Your task to perform on an android device: Open Chrome and go to the settings page Image 0: 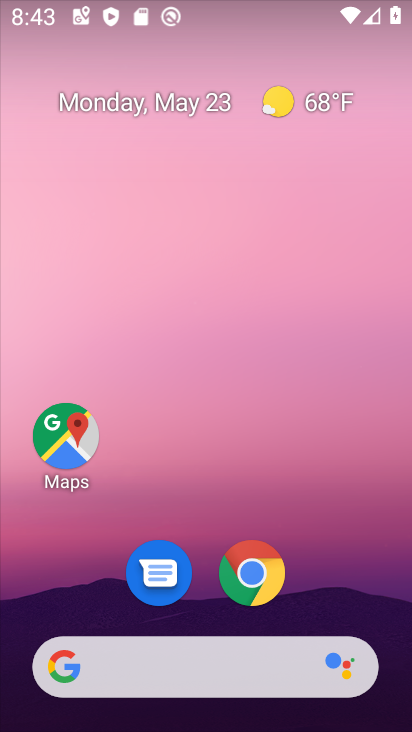
Step 0: drag from (198, 698) to (193, 217)
Your task to perform on an android device: Open Chrome and go to the settings page Image 1: 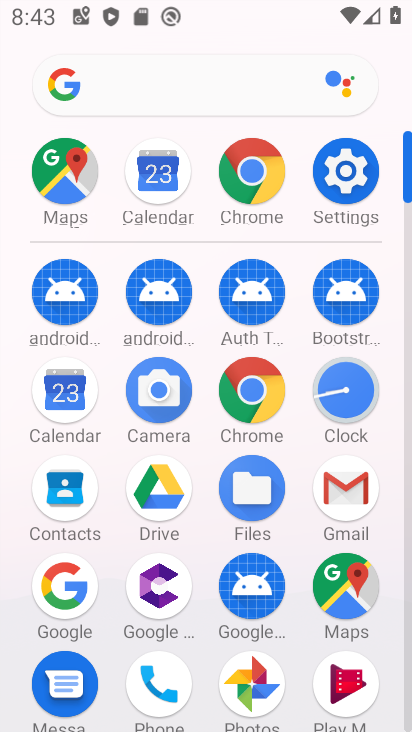
Step 1: click (250, 188)
Your task to perform on an android device: Open Chrome and go to the settings page Image 2: 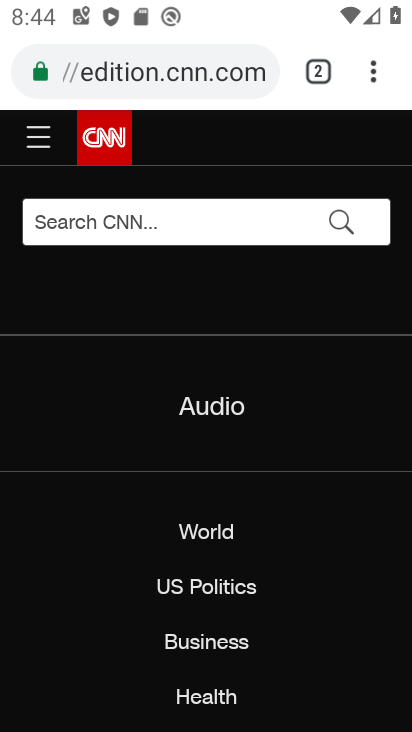
Step 2: click (377, 67)
Your task to perform on an android device: Open Chrome and go to the settings page Image 3: 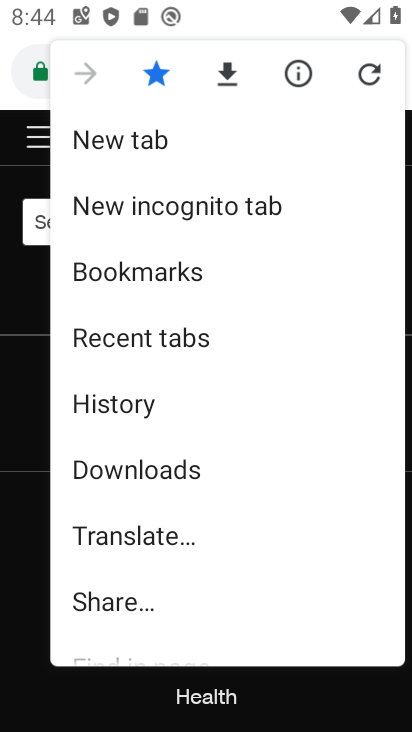
Step 3: drag from (199, 561) to (218, 197)
Your task to perform on an android device: Open Chrome and go to the settings page Image 4: 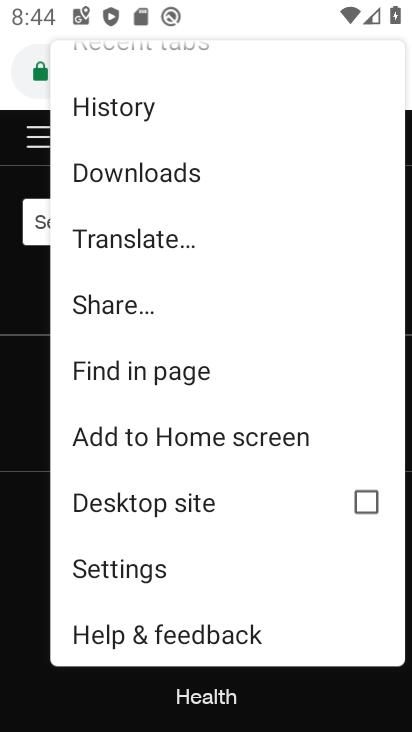
Step 4: click (207, 567)
Your task to perform on an android device: Open Chrome and go to the settings page Image 5: 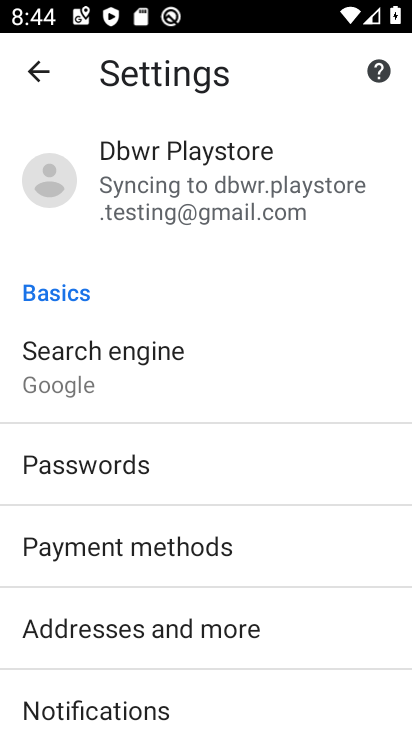
Step 5: task complete